Your task to perform on an android device: turn off data saver in the chrome app Image 0: 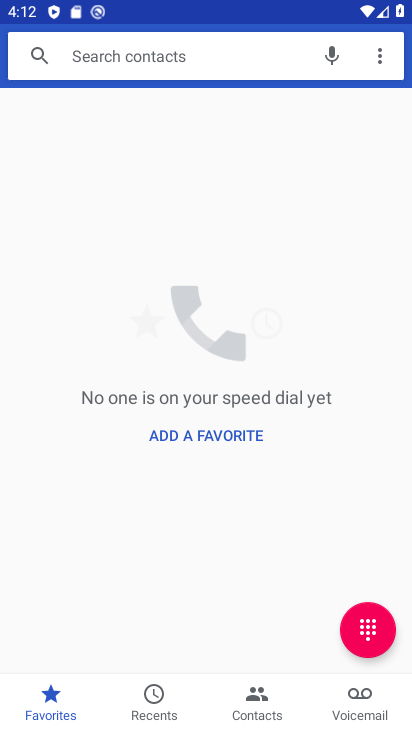
Step 0: press back button
Your task to perform on an android device: turn off data saver in the chrome app Image 1: 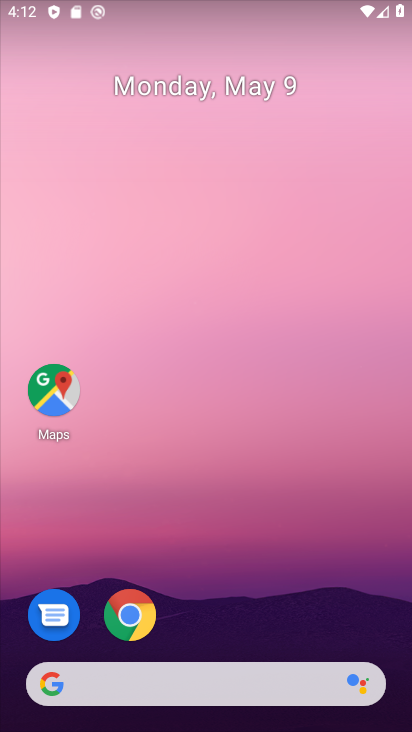
Step 1: click (140, 640)
Your task to perform on an android device: turn off data saver in the chrome app Image 2: 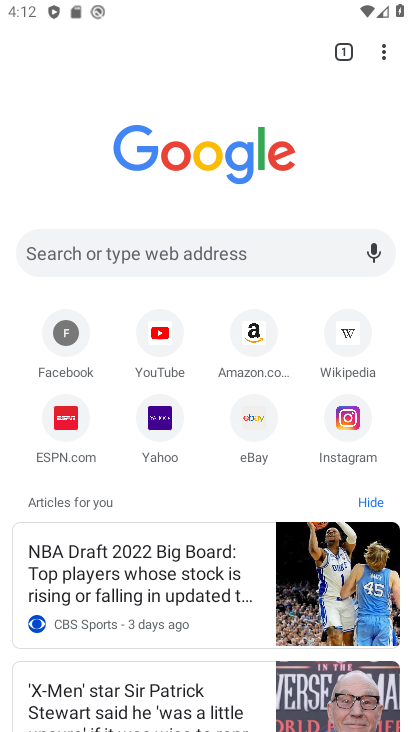
Step 2: click (140, 640)
Your task to perform on an android device: turn off data saver in the chrome app Image 3: 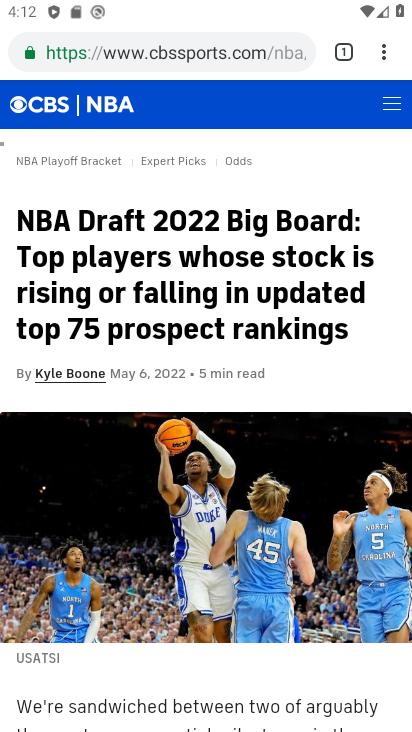
Step 3: click (385, 58)
Your task to perform on an android device: turn off data saver in the chrome app Image 4: 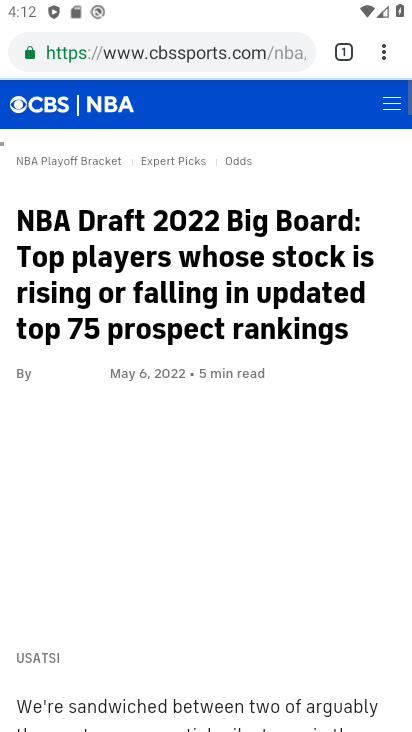
Step 4: drag from (382, 59) to (224, 623)
Your task to perform on an android device: turn off data saver in the chrome app Image 5: 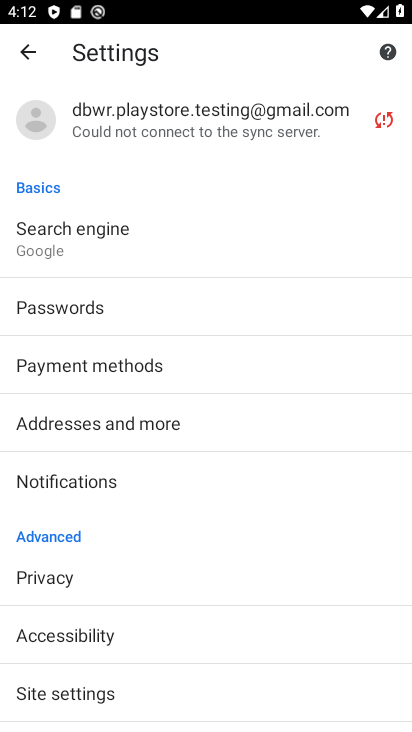
Step 5: drag from (224, 623) to (315, 402)
Your task to perform on an android device: turn off data saver in the chrome app Image 6: 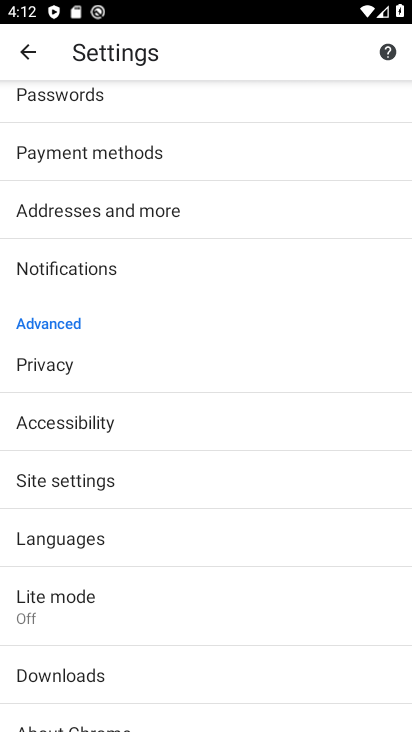
Step 6: click (140, 595)
Your task to perform on an android device: turn off data saver in the chrome app Image 7: 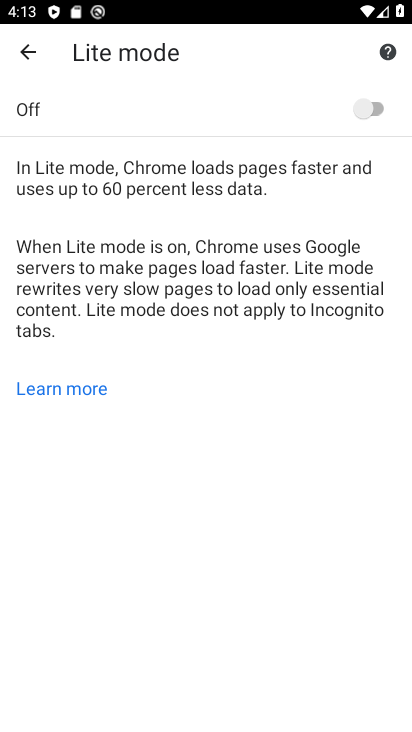
Step 7: task complete